Your task to perform on an android device: turn off priority inbox in the gmail app Image 0: 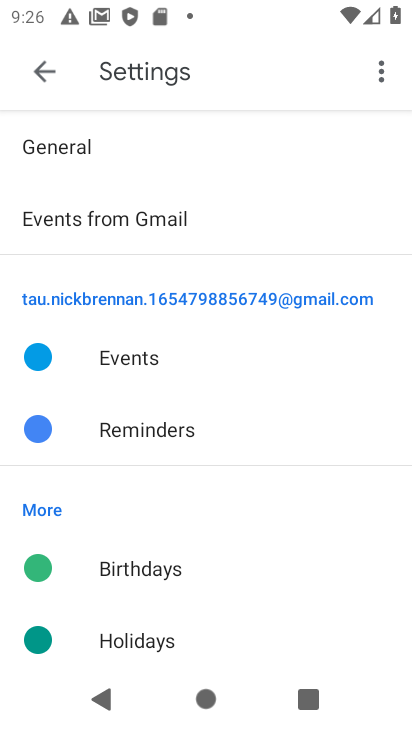
Step 0: press home button
Your task to perform on an android device: turn off priority inbox in the gmail app Image 1: 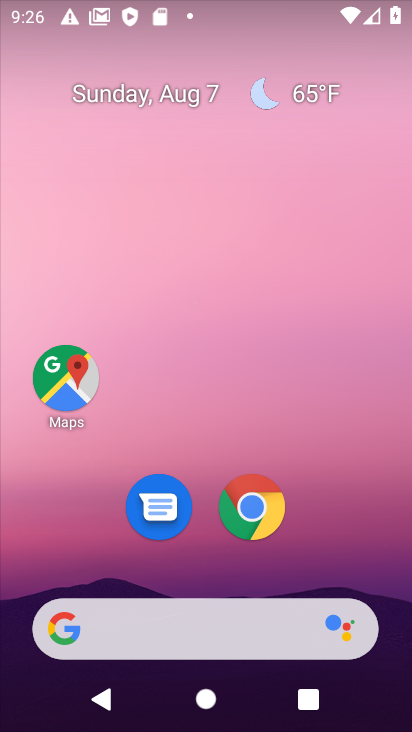
Step 1: drag from (321, 551) to (317, 101)
Your task to perform on an android device: turn off priority inbox in the gmail app Image 2: 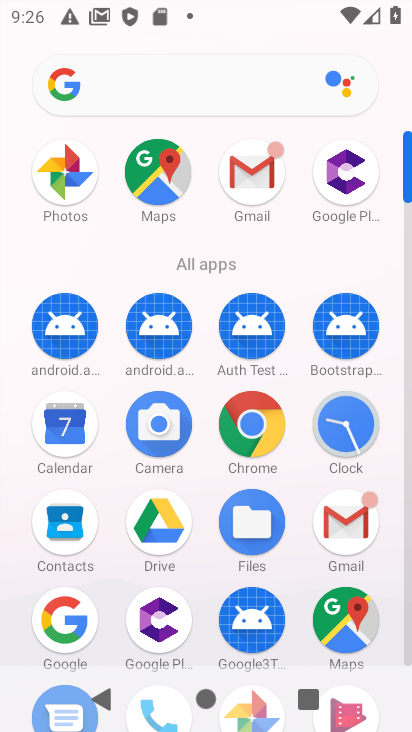
Step 2: click (335, 526)
Your task to perform on an android device: turn off priority inbox in the gmail app Image 3: 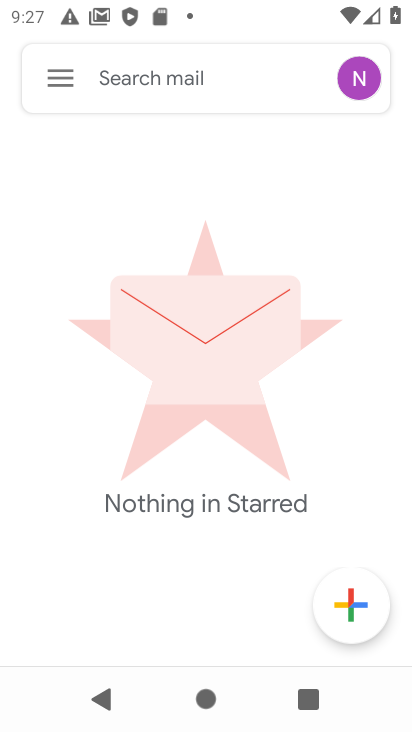
Step 3: click (61, 64)
Your task to perform on an android device: turn off priority inbox in the gmail app Image 4: 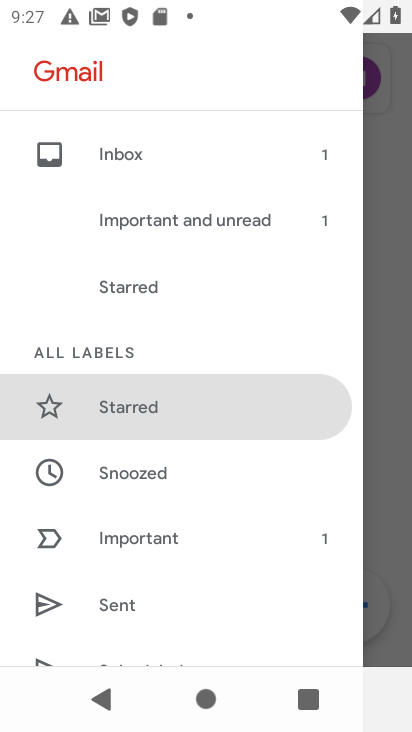
Step 4: drag from (203, 590) to (281, 106)
Your task to perform on an android device: turn off priority inbox in the gmail app Image 5: 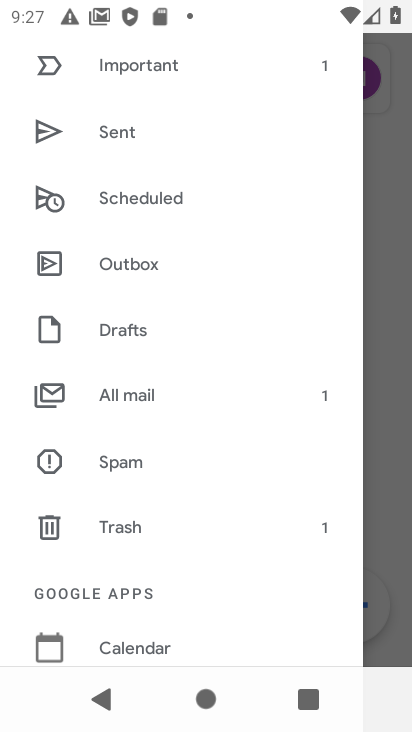
Step 5: drag from (234, 602) to (304, 177)
Your task to perform on an android device: turn off priority inbox in the gmail app Image 6: 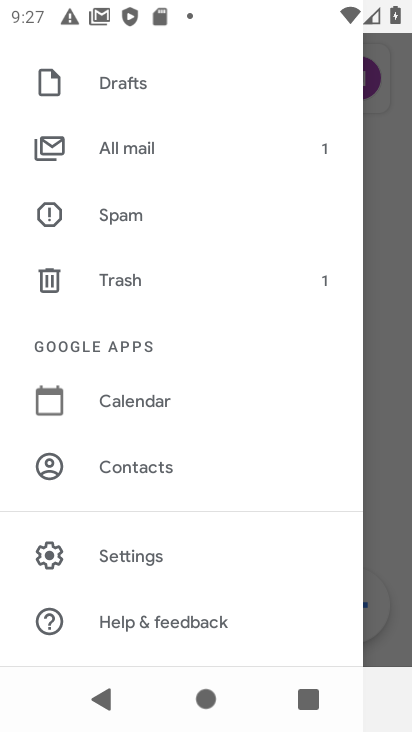
Step 6: click (164, 564)
Your task to perform on an android device: turn off priority inbox in the gmail app Image 7: 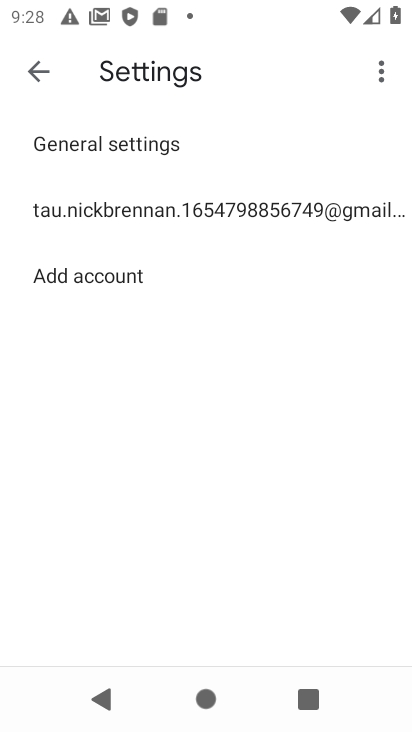
Step 7: click (337, 214)
Your task to perform on an android device: turn off priority inbox in the gmail app Image 8: 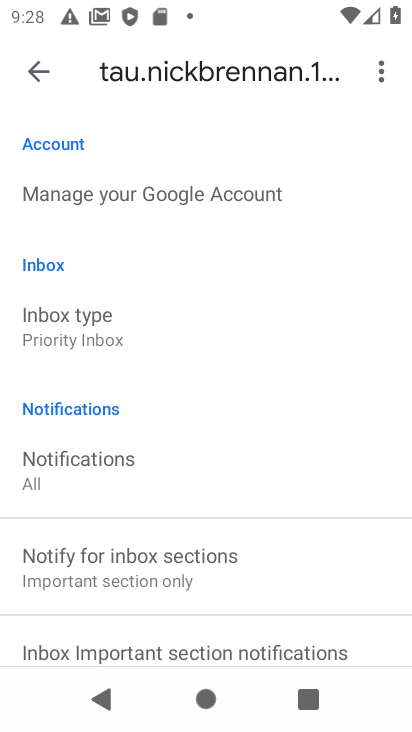
Step 8: click (68, 335)
Your task to perform on an android device: turn off priority inbox in the gmail app Image 9: 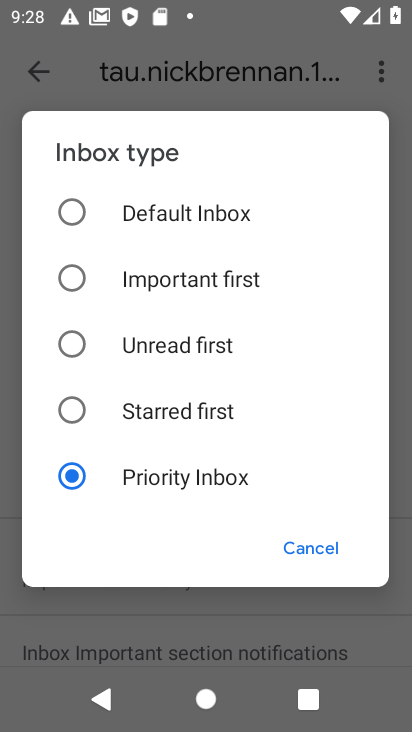
Step 9: task complete